Your task to perform on an android device: change text size in settings app Image 0: 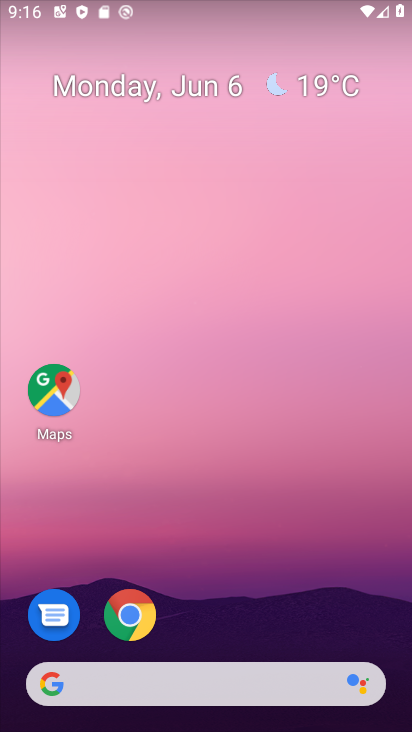
Step 0: drag from (211, 644) to (187, 100)
Your task to perform on an android device: change text size in settings app Image 1: 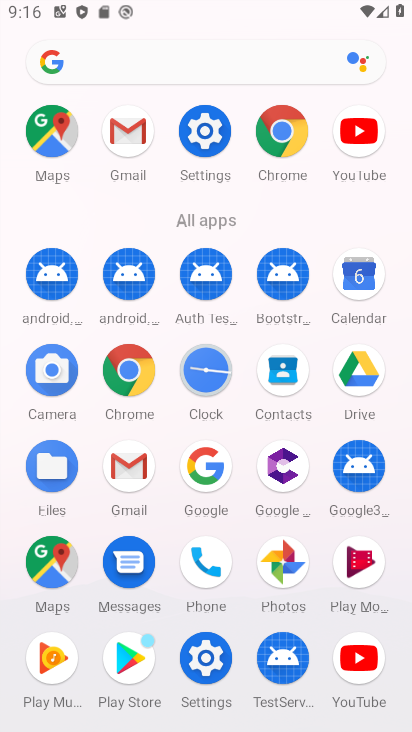
Step 1: click (210, 144)
Your task to perform on an android device: change text size in settings app Image 2: 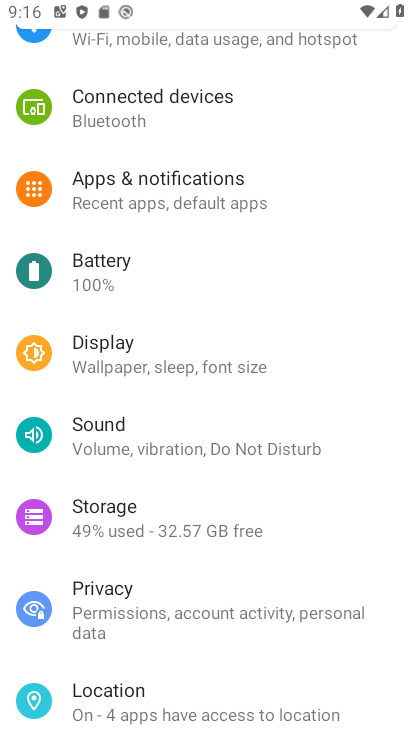
Step 2: click (154, 342)
Your task to perform on an android device: change text size in settings app Image 3: 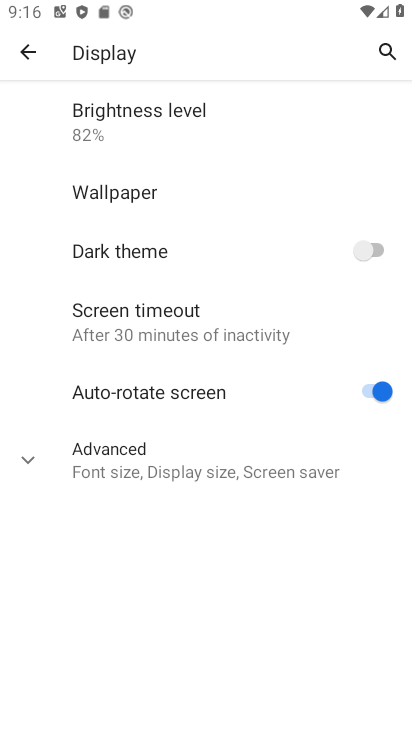
Step 3: click (154, 443)
Your task to perform on an android device: change text size in settings app Image 4: 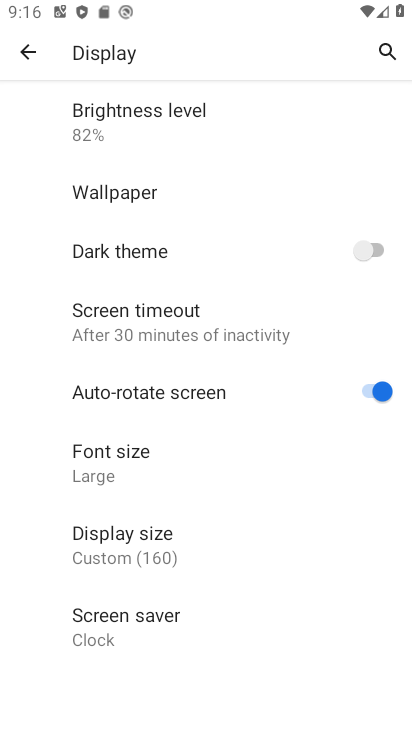
Step 4: click (154, 443)
Your task to perform on an android device: change text size in settings app Image 5: 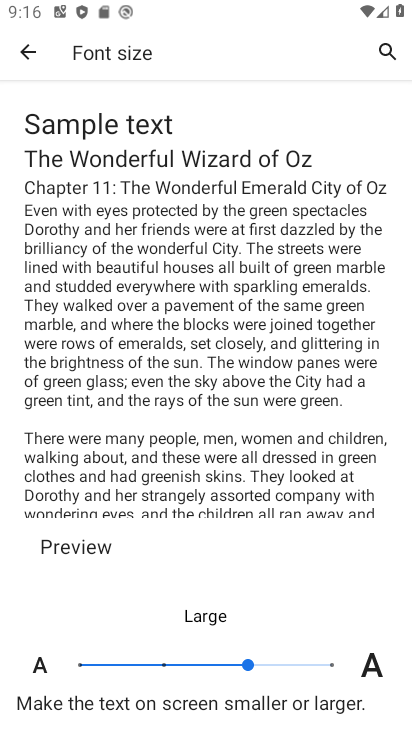
Step 5: click (160, 669)
Your task to perform on an android device: change text size in settings app Image 6: 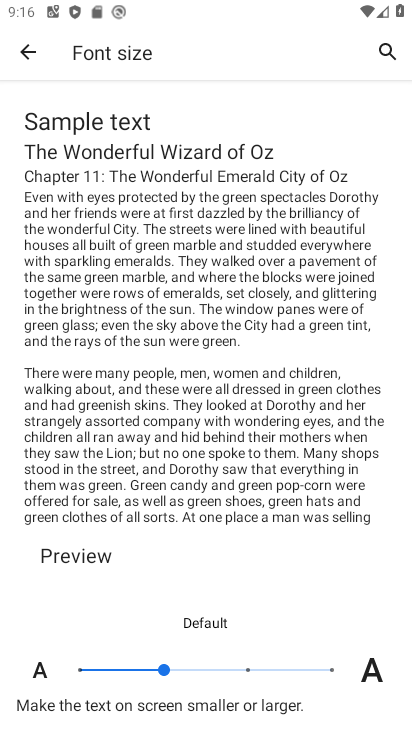
Step 6: task complete